Your task to perform on an android device: toggle pop-ups in chrome Image 0: 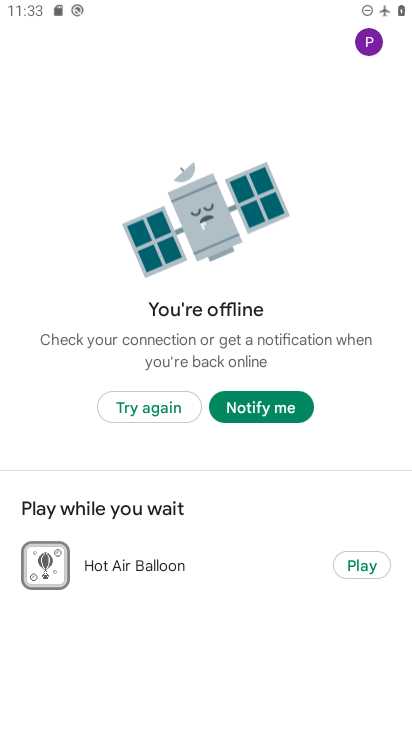
Step 0: press back button
Your task to perform on an android device: toggle pop-ups in chrome Image 1: 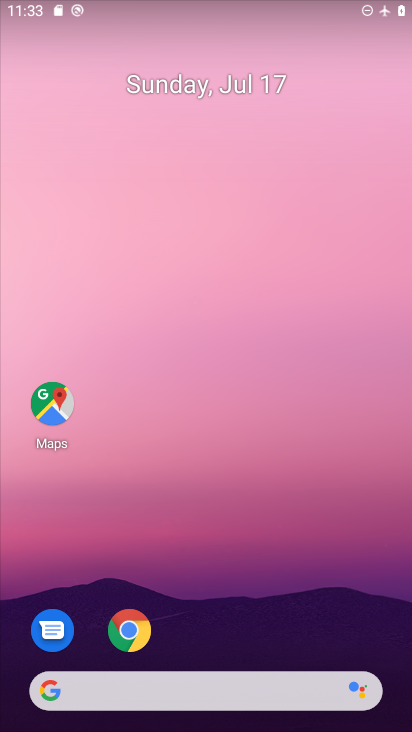
Step 1: click (135, 632)
Your task to perform on an android device: toggle pop-ups in chrome Image 2: 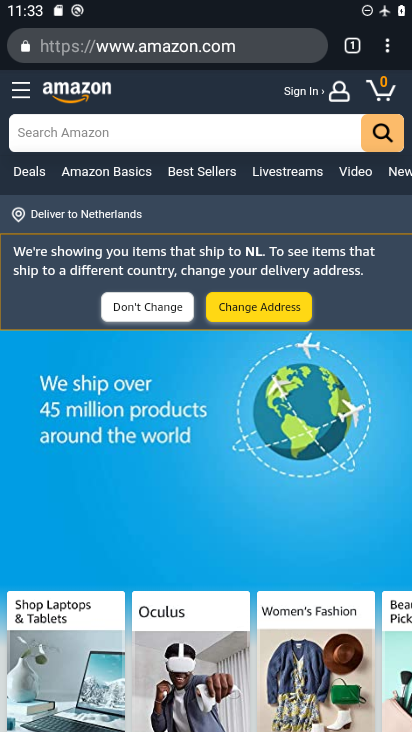
Step 2: click (390, 45)
Your task to perform on an android device: toggle pop-ups in chrome Image 3: 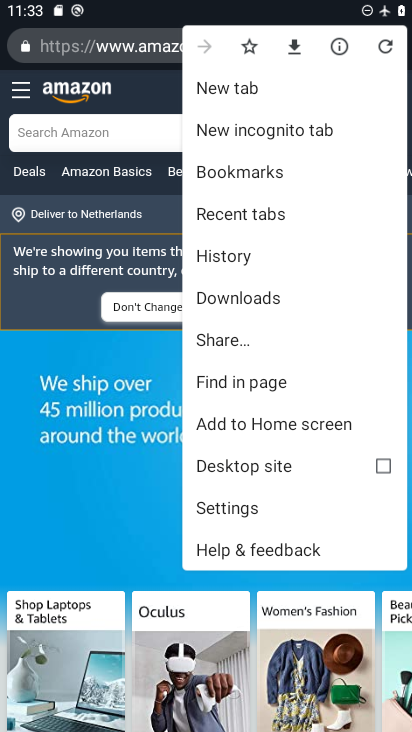
Step 3: click (214, 513)
Your task to perform on an android device: toggle pop-ups in chrome Image 4: 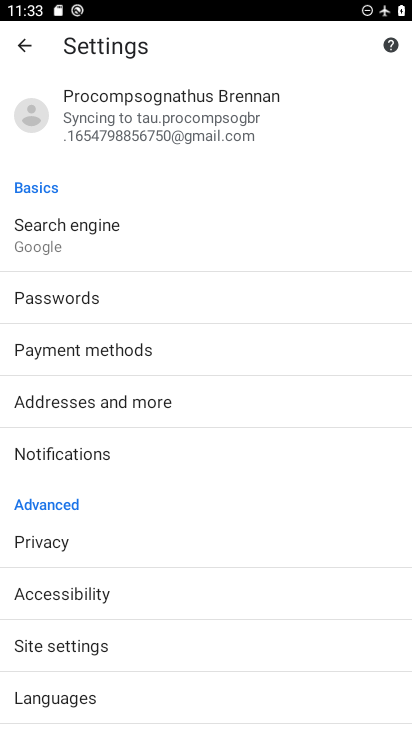
Step 4: click (59, 649)
Your task to perform on an android device: toggle pop-ups in chrome Image 5: 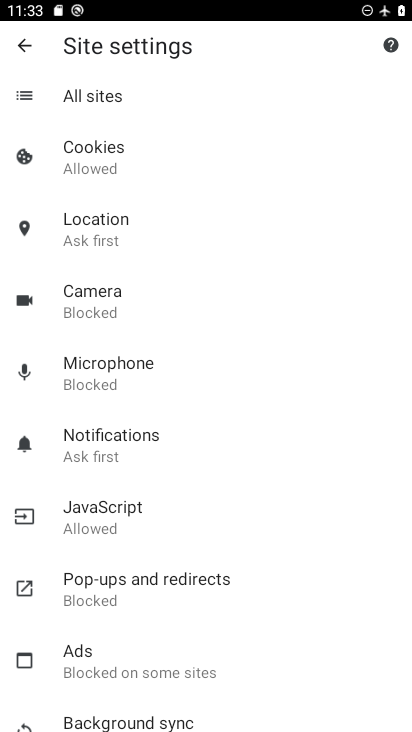
Step 5: click (78, 573)
Your task to perform on an android device: toggle pop-ups in chrome Image 6: 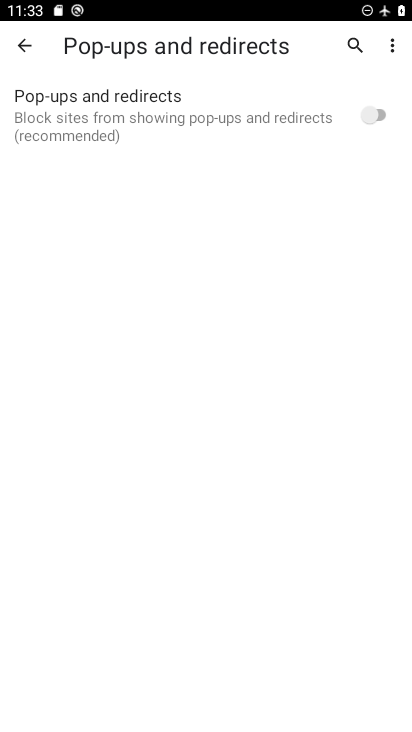
Step 6: click (381, 116)
Your task to perform on an android device: toggle pop-ups in chrome Image 7: 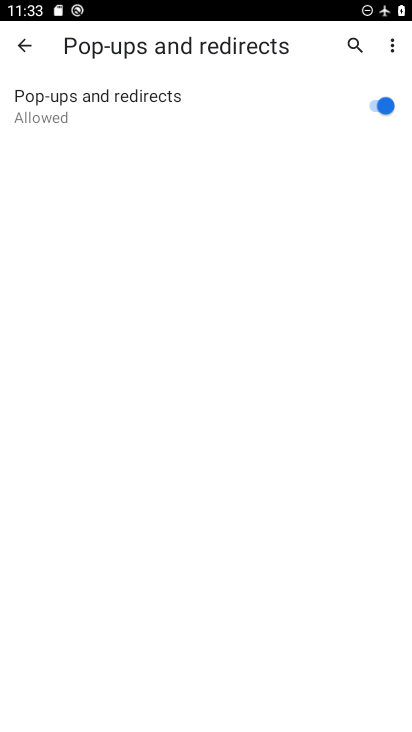
Step 7: task complete